Your task to perform on an android device: Open Google Maps and go to "Timeline" Image 0: 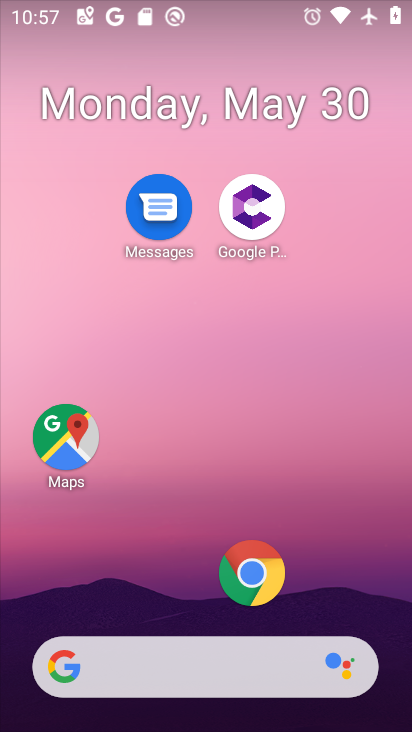
Step 0: click (80, 428)
Your task to perform on an android device: Open Google Maps and go to "Timeline" Image 1: 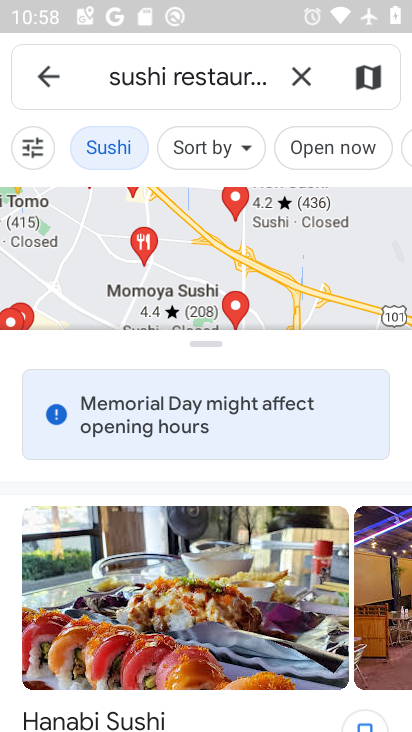
Step 1: click (37, 60)
Your task to perform on an android device: Open Google Maps and go to "Timeline" Image 2: 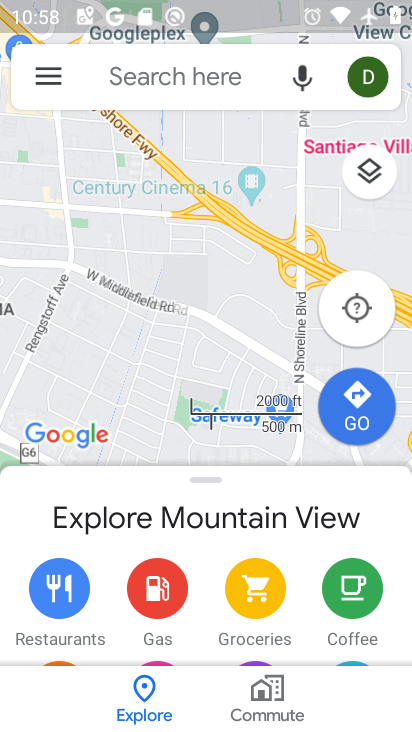
Step 2: click (65, 67)
Your task to perform on an android device: Open Google Maps and go to "Timeline" Image 3: 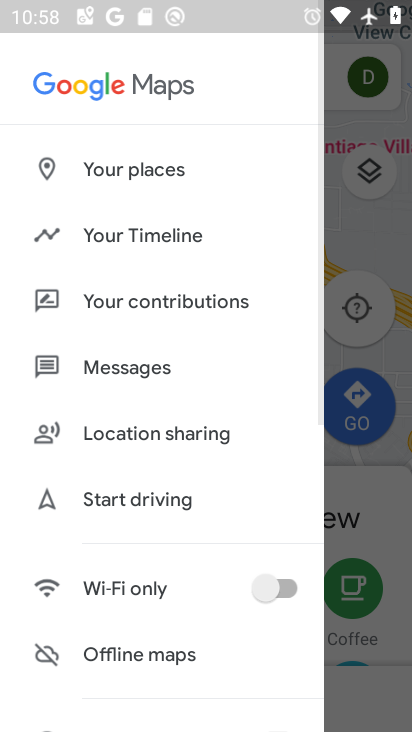
Step 3: click (206, 242)
Your task to perform on an android device: Open Google Maps and go to "Timeline" Image 4: 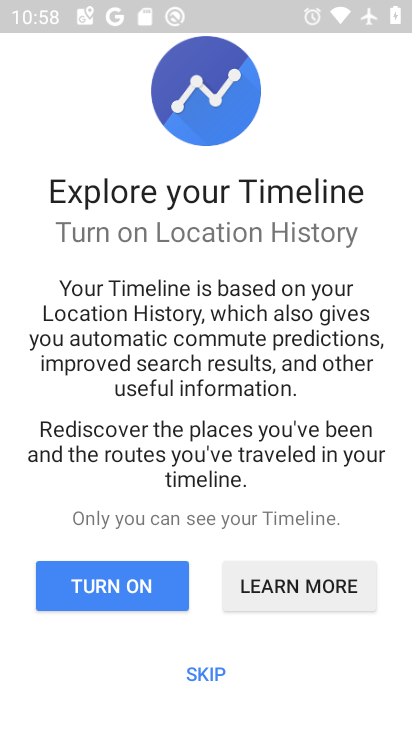
Step 4: click (209, 677)
Your task to perform on an android device: Open Google Maps and go to "Timeline" Image 5: 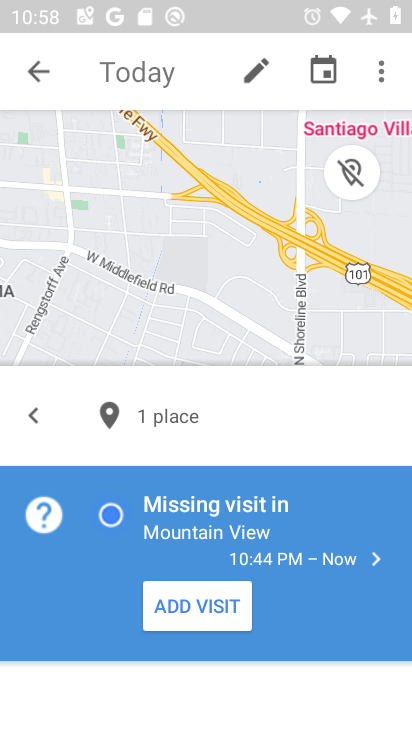
Step 5: task complete